Your task to perform on an android device: Turn on the flashlight Image 0: 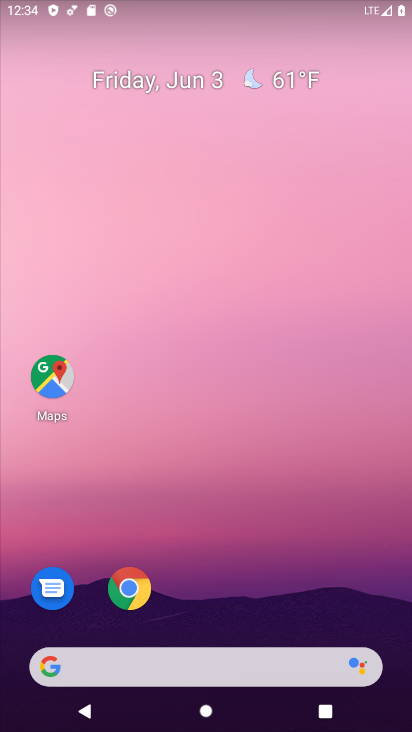
Step 0: drag from (203, 630) to (241, 140)
Your task to perform on an android device: Turn on the flashlight Image 1: 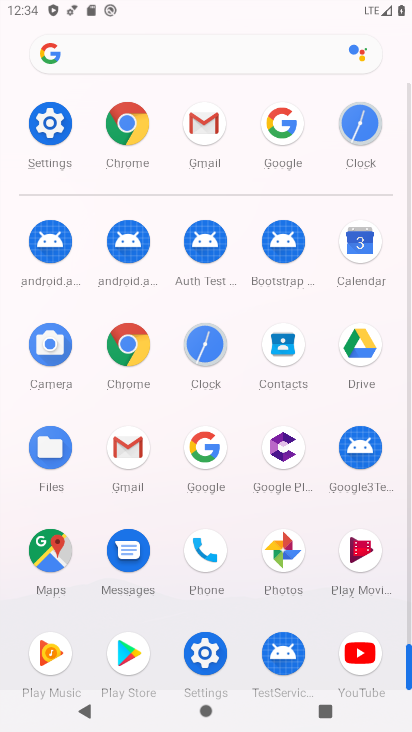
Step 1: click (202, 654)
Your task to perform on an android device: Turn on the flashlight Image 2: 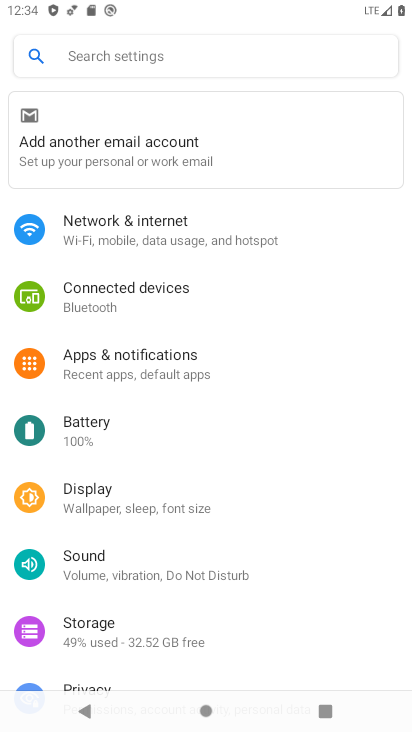
Step 2: task complete